Your task to perform on an android device: Open internet settings Image 0: 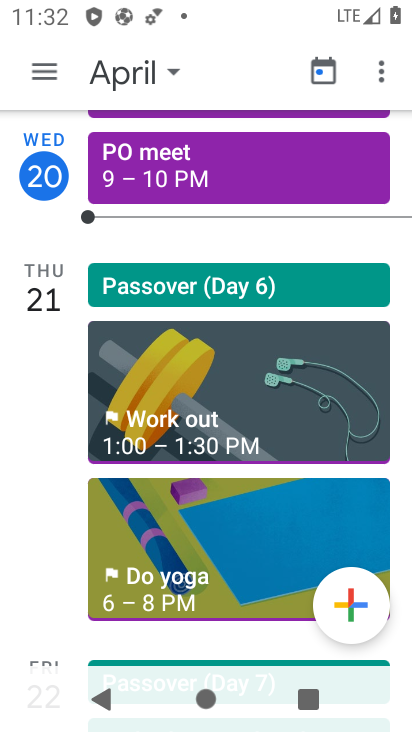
Step 0: press home button
Your task to perform on an android device: Open internet settings Image 1: 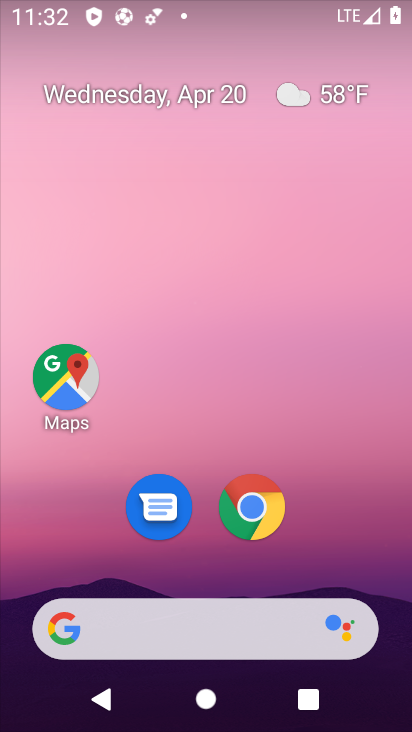
Step 1: drag from (359, 528) to (339, 42)
Your task to perform on an android device: Open internet settings Image 2: 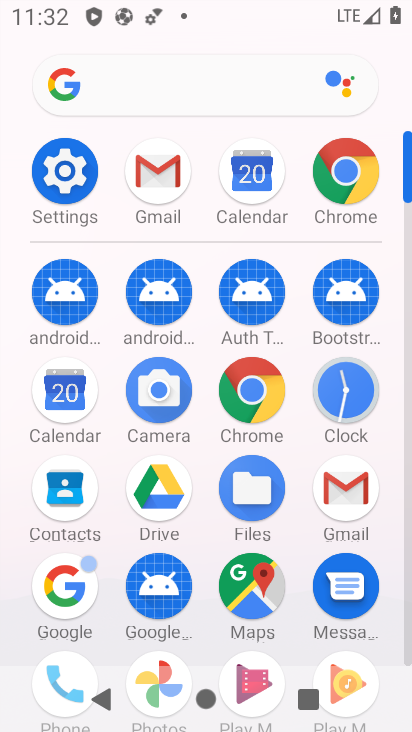
Step 2: click (61, 177)
Your task to perform on an android device: Open internet settings Image 3: 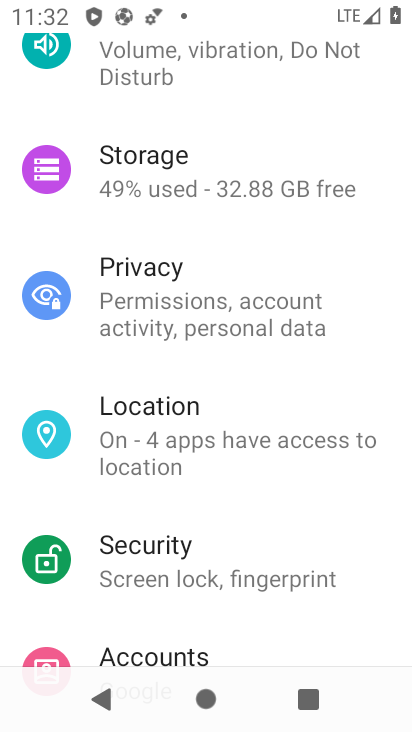
Step 3: drag from (380, 557) to (385, 344)
Your task to perform on an android device: Open internet settings Image 4: 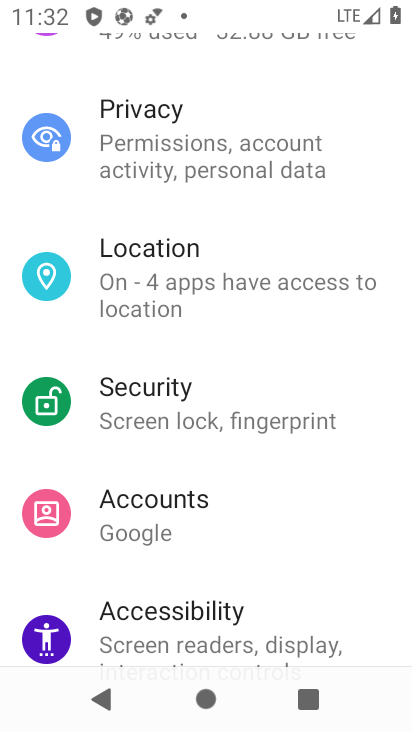
Step 4: drag from (355, 581) to (369, 435)
Your task to perform on an android device: Open internet settings Image 5: 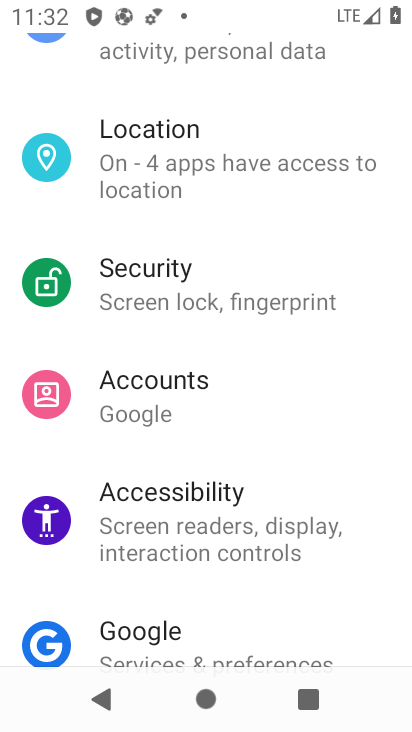
Step 5: drag from (386, 611) to (393, 321)
Your task to perform on an android device: Open internet settings Image 6: 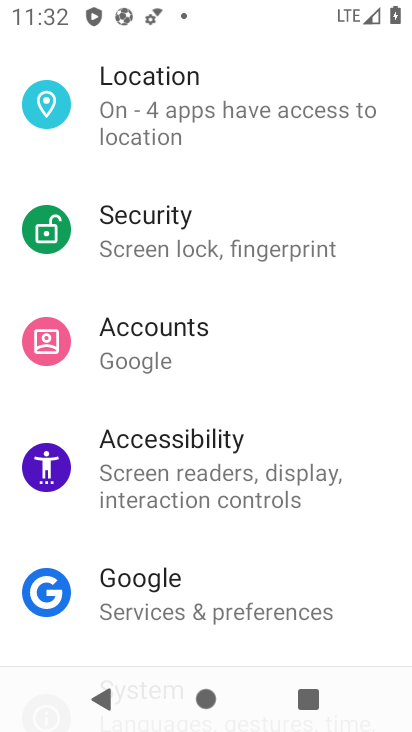
Step 6: drag from (369, 610) to (366, 364)
Your task to perform on an android device: Open internet settings Image 7: 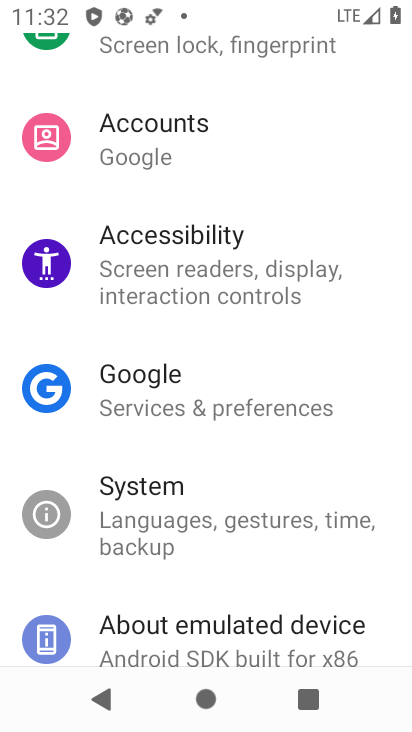
Step 7: drag from (366, 585) to (369, 349)
Your task to perform on an android device: Open internet settings Image 8: 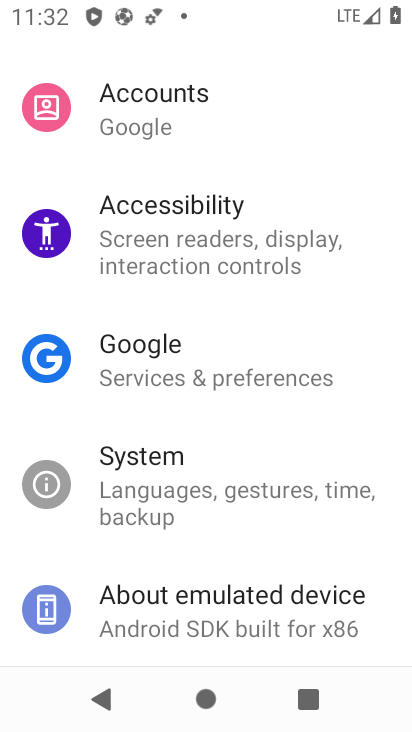
Step 8: drag from (376, 268) to (372, 443)
Your task to perform on an android device: Open internet settings Image 9: 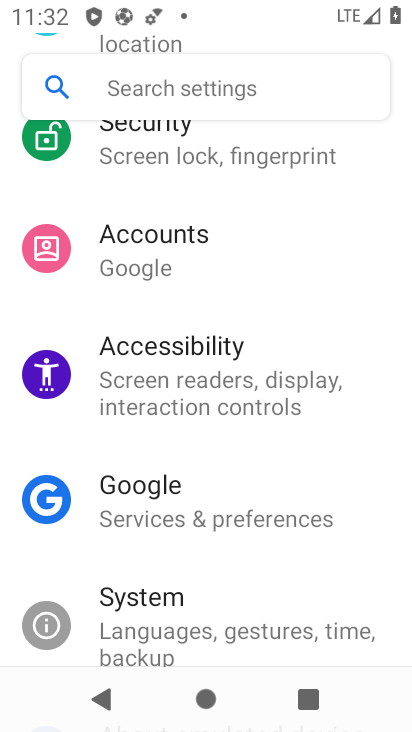
Step 9: drag from (376, 268) to (385, 481)
Your task to perform on an android device: Open internet settings Image 10: 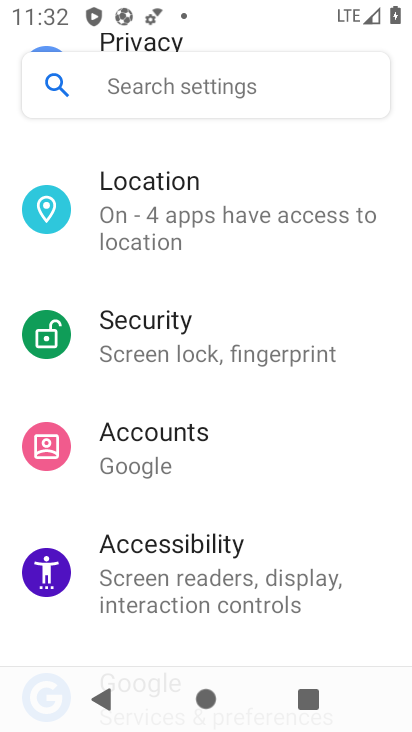
Step 10: drag from (381, 267) to (341, 488)
Your task to perform on an android device: Open internet settings Image 11: 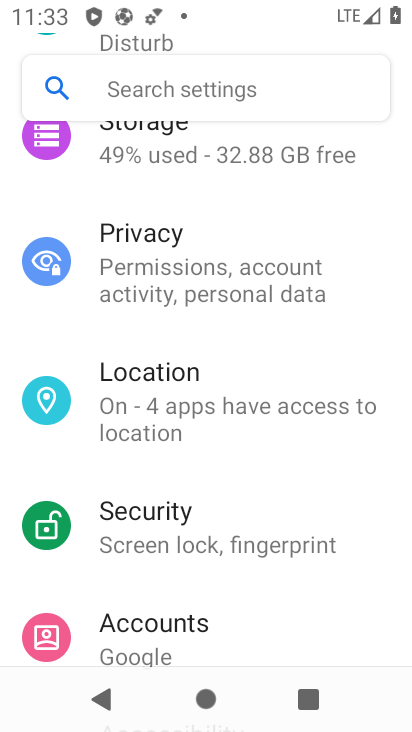
Step 11: drag from (368, 484) to (365, 531)
Your task to perform on an android device: Open internet settings Image 12: 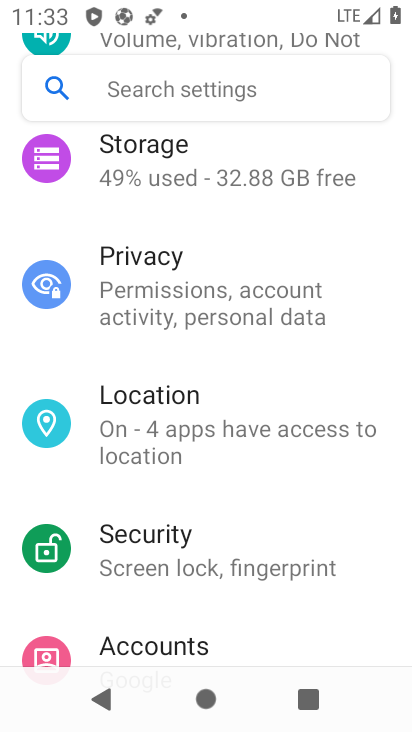
Step 12: drag from (370, 254) to (354, 544)
Your task to perform on an android device: Open internet settings Image 13: 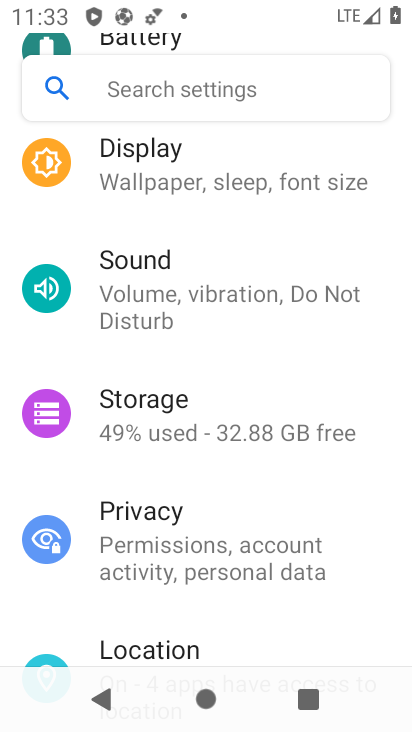
Step 13: drag from (381, 265) to (366, 485)
Your task to perform on an android device: Open internet settings Image 14: 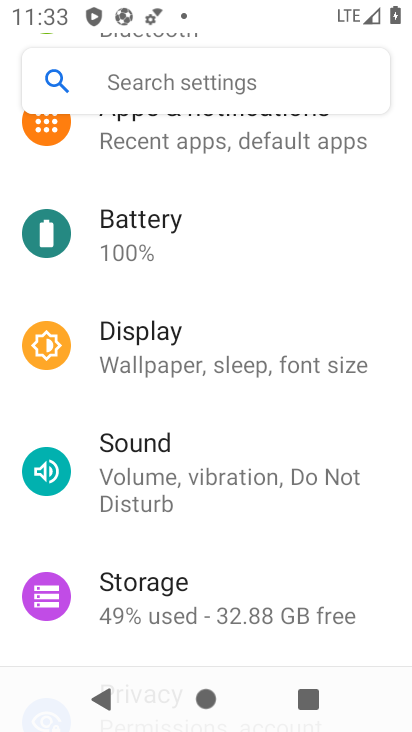
Step 14: drag from (365, 234) to (363, 518)
Your task to perform on an android device: Open internet settings Image 15: 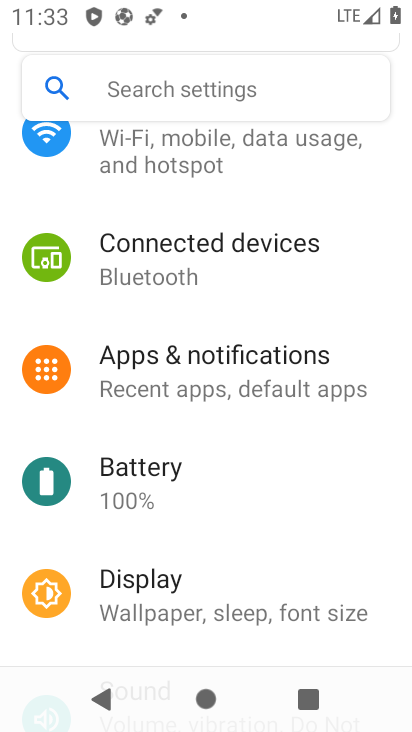
Step 15: drag from (380, 211) to (366, 497)
Your task to perform on an android device: Open internet settings Image 16: 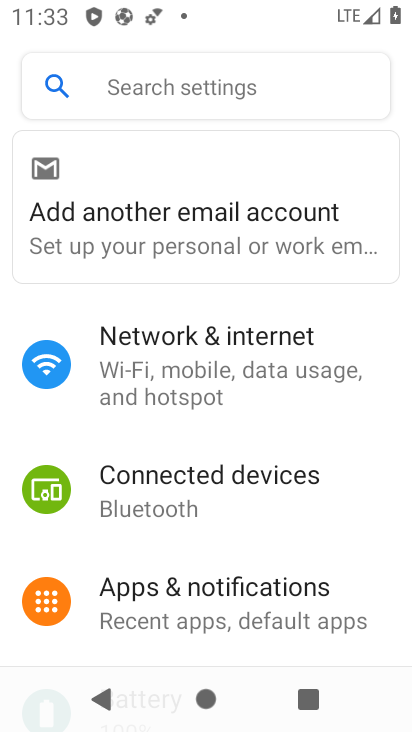
Step 16: click (220, 359)
Your task to perform on an android device: Open internet settings Image 17: 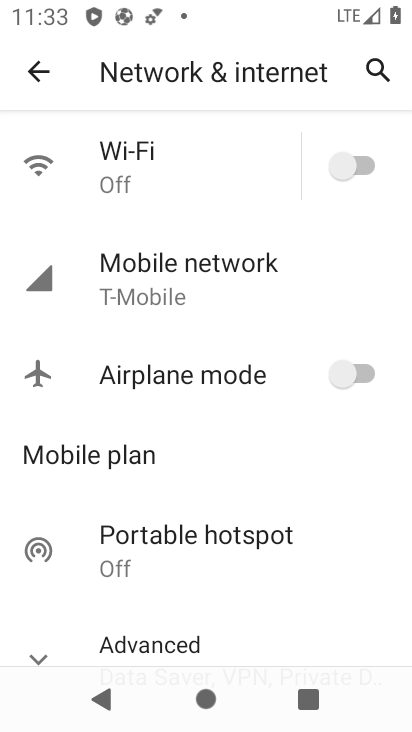
Step 17: task complete